Your task to perform on an android device: Go to settings Image 0: 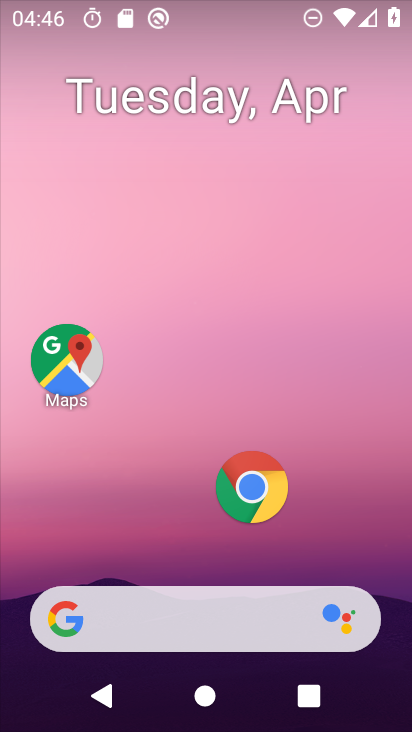
Step 0: drag from (218, 356) to (269, 24)
Your task to perform on an android device: Go to settings Image 1: 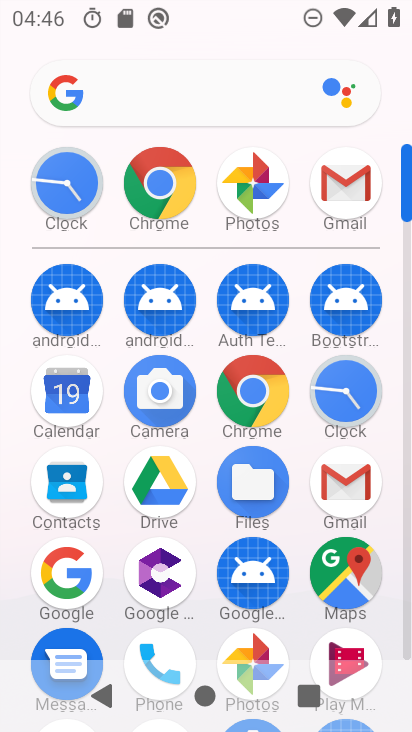
Step 1: drag from (207, 638) to (307, 88)
Your task to perform on an android device: Go to settings Image 2: 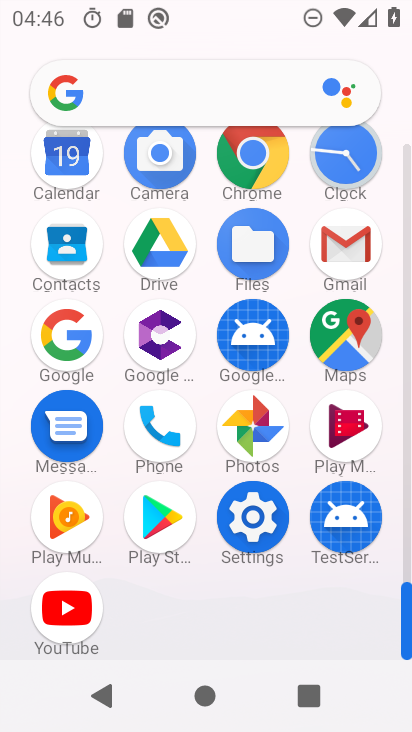
Step 2: click (252, 516)
Your task to perform on an android device: Go to settings Image 3: 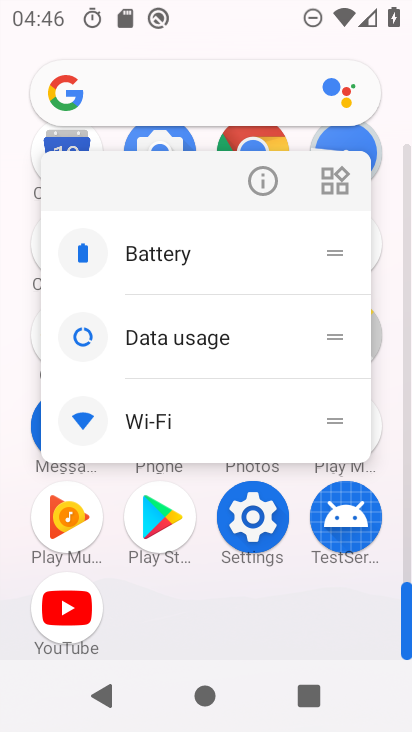
Step 3: click (252, 523)
Your task to perform on an android device: Go to settings Image 4: 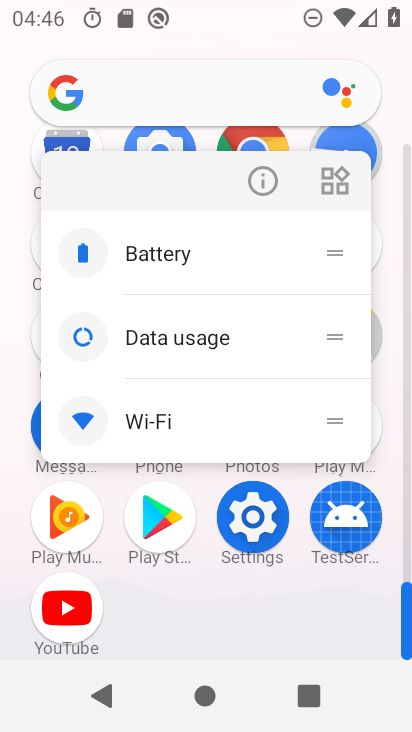
Step 4: click (258, 517)
Your task to perform on an android device: Go to settings Image 5: 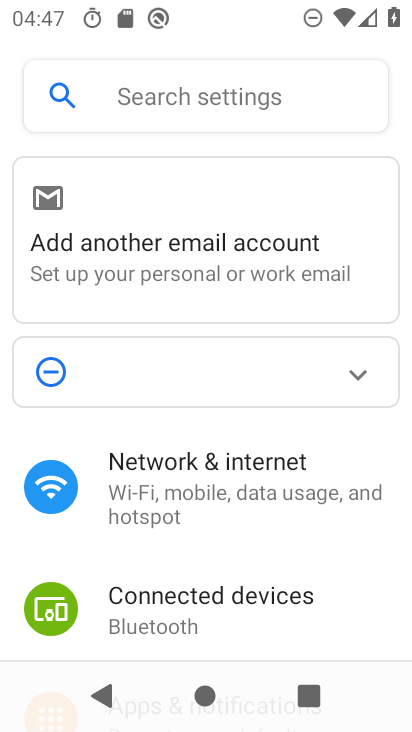
Step 5: task complete